Your task to perform on an android device: Open Youtube and go to the subscriptions tab Image 0: 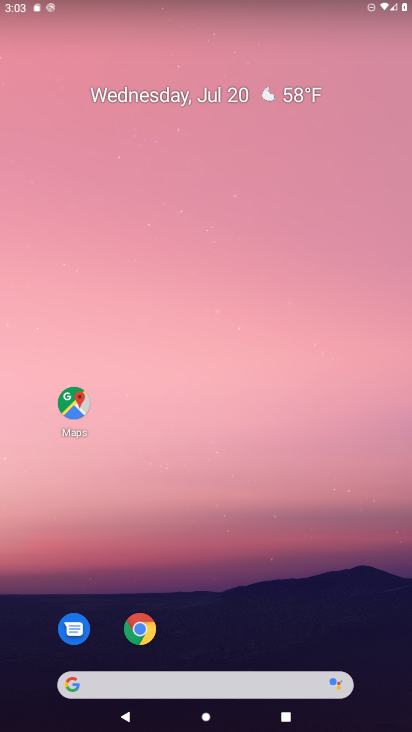
Step 0: drag from (215, 626) to (245, 26)
Your task to perform on an android device: Open Youtube and go to the subscriptions tab Image 1: 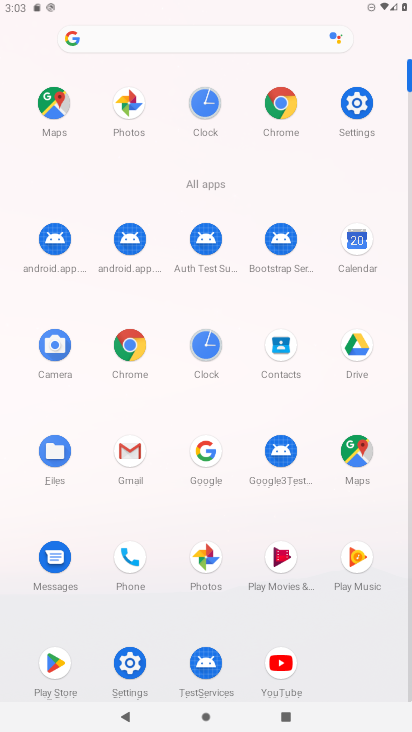
Step 1: click (290, 663)
Your task to perform on an android device: Open Youtube and go to the subscriptions tab Image 2: 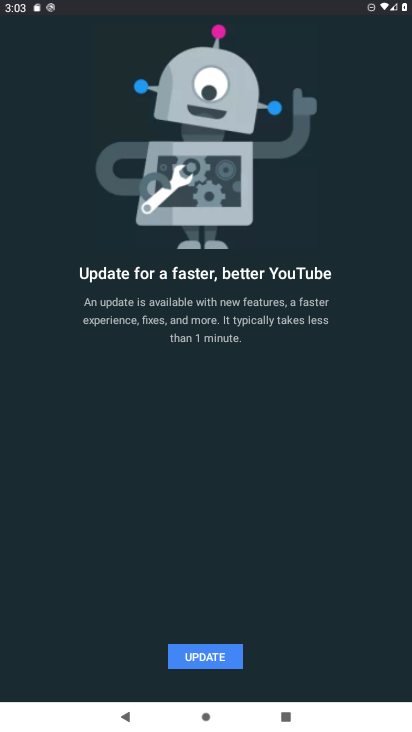
Step 2: click (227, 658)
Your task to perform on an android device: Open Youtube and go to the subscriptions tab Image 3: 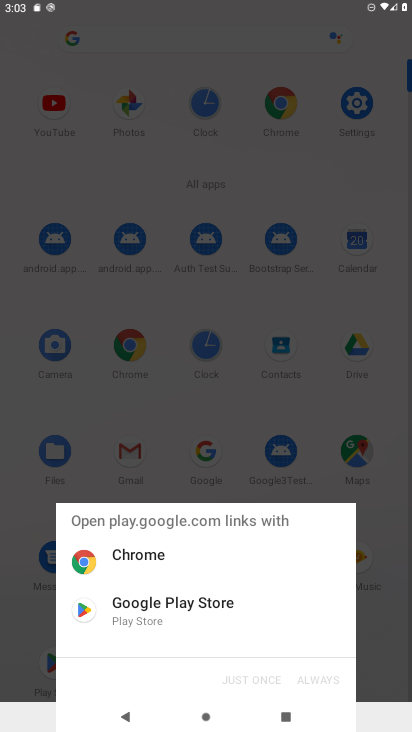
Step 3: click (167, 597)
Your task to perform on an android device: Open Youtube and go to the subscriptions tab Image 4: 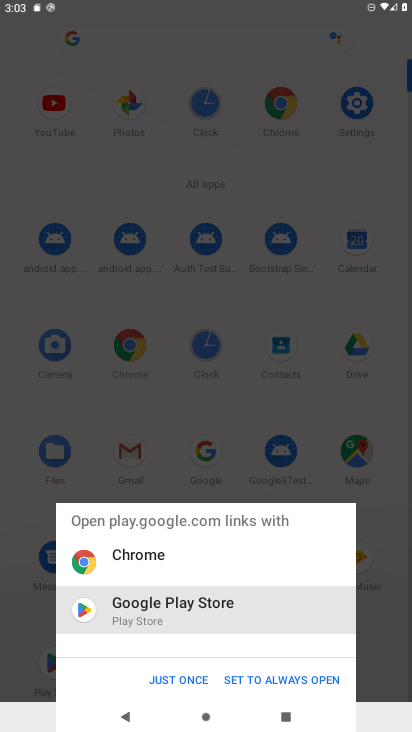
Step 4: click (186, 679)
Your task to perform on an android device: Open Youtube and go to the subscriptions tab Image 5: 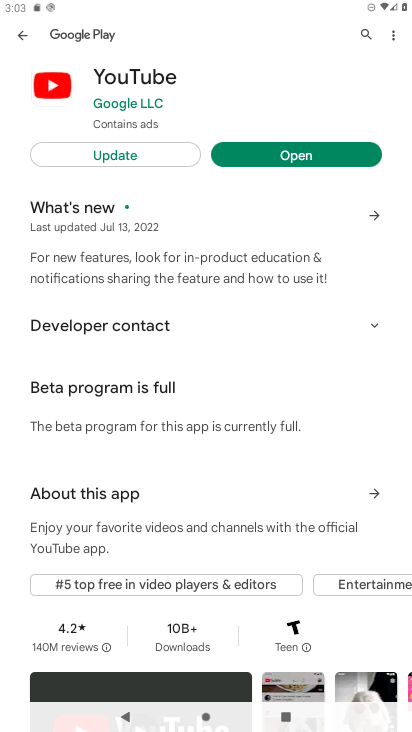
Step 5: click (135, 152)
Your task to perform on an android device: Open Youtube and go to the subscriptions tab Image 6: 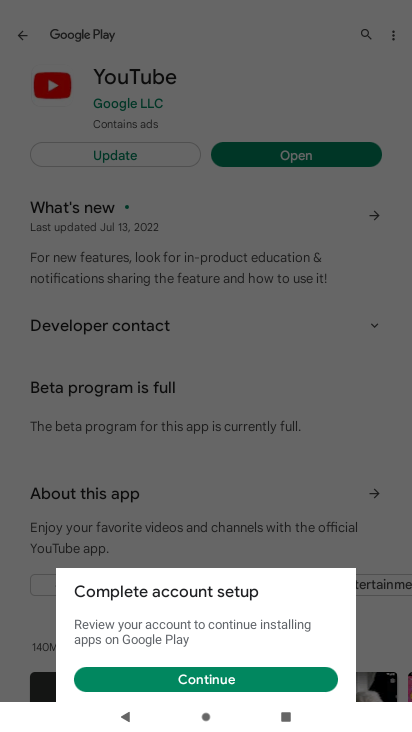
Step 6: click (203, 684)
Your task to perform on an android device: Open Youtube and go to the subscriptions tab Image 7: 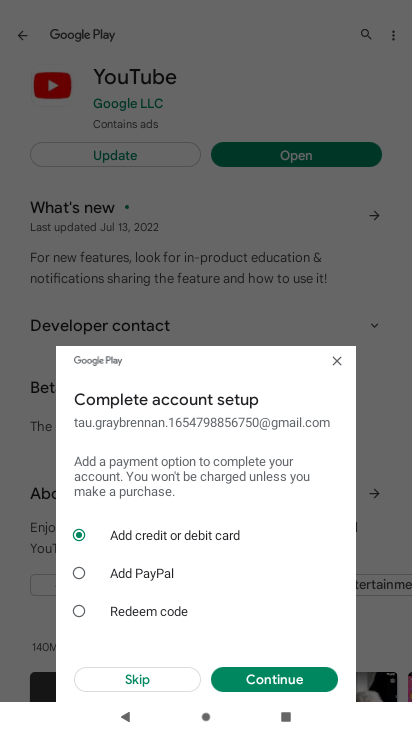
Step 7: click (290, 677)
Your task to perform on an android device: Open Youtube and go to the subscriptions tab Image 8: 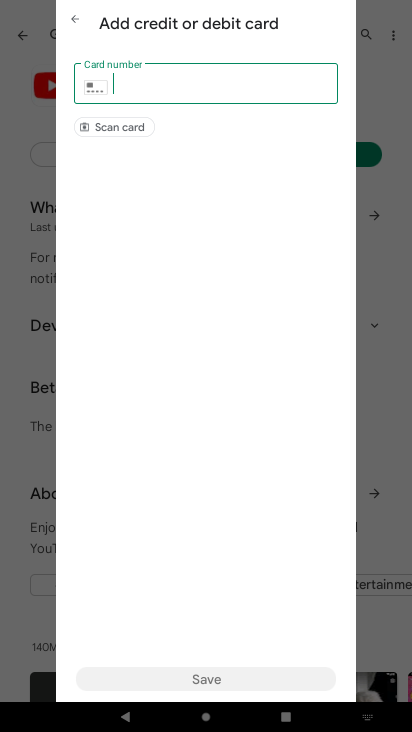
Step 8: click (77, 20)
Your task to perform on an android device: Open Youtube and go to the subscriptions tab Image 9: 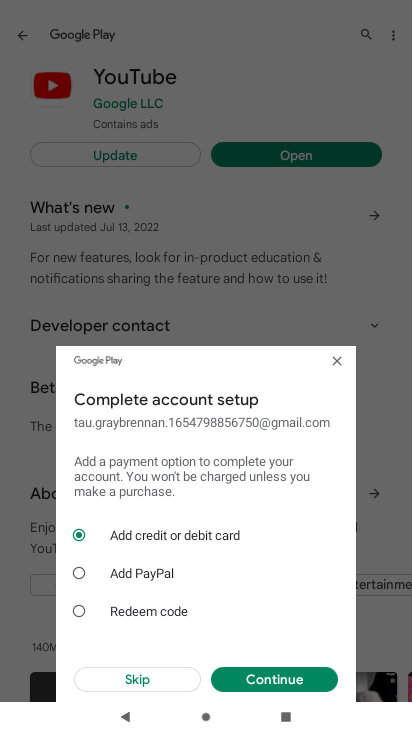
Step 9: click (154, 685)
Your task to perform on an android device: Open Youtube and go to the subscriptions tab Image 10: 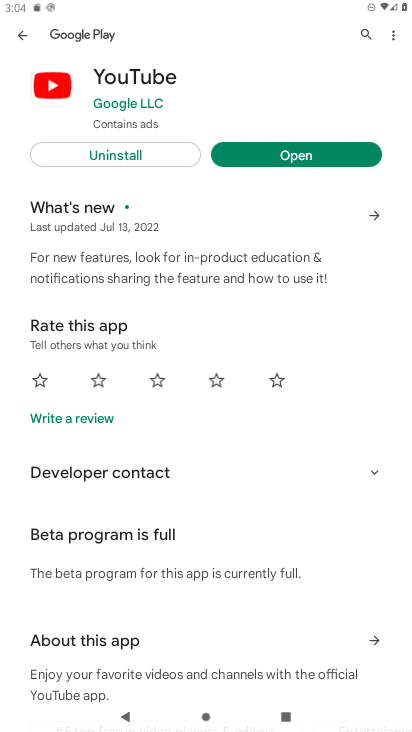
Step 10: click (279, 152)
Your task to perform on an android device: Open Youtube and go to the subscriptions tab Image 11: 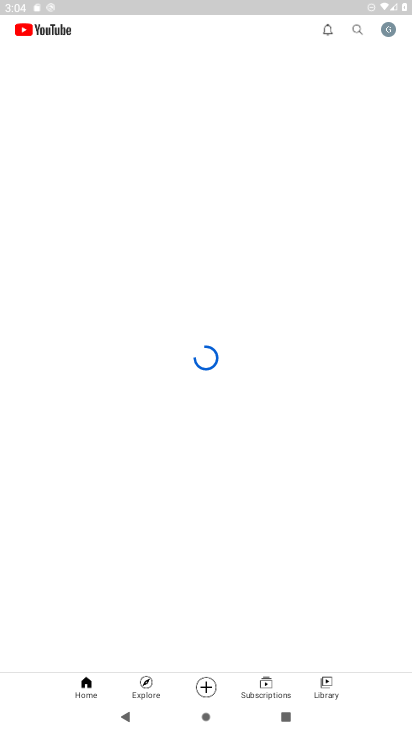
Step 11: click (265, 683)
Your task to perform on an android device: Open Youtube and go to the subscriptions tab Image 12: 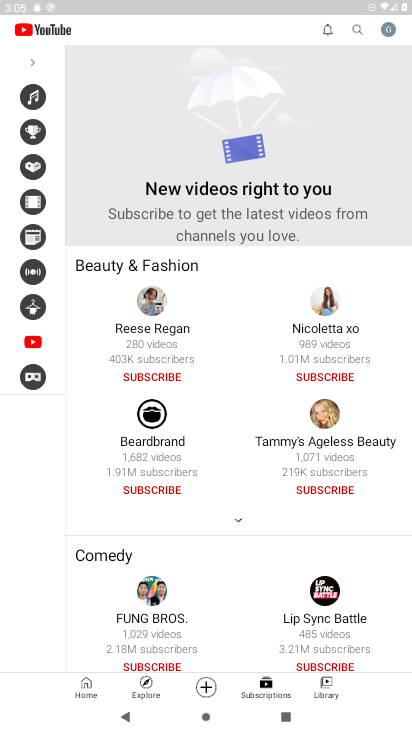
Step 12: task complete